Your task to perform on an android device: turn off improve location accuracy Image 0: 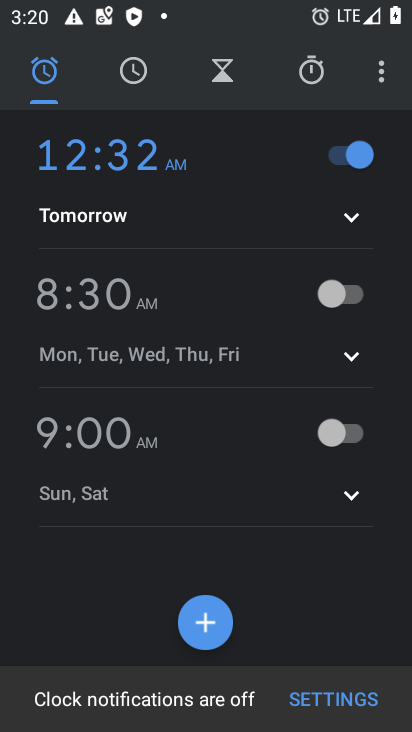
Step 0: press home button
Your task to perform on an android device: turn off improve location accuracy Image 1: 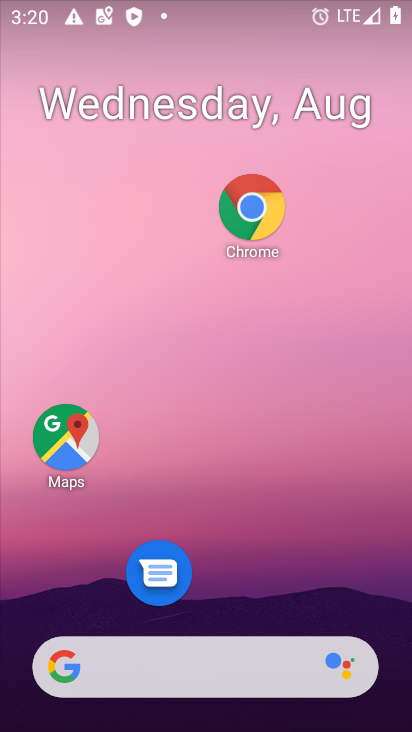
Step 1: drag from (224, 569) to (337, 55)
Your task to perform on an android device: turn off improve location accuracy Image 2: 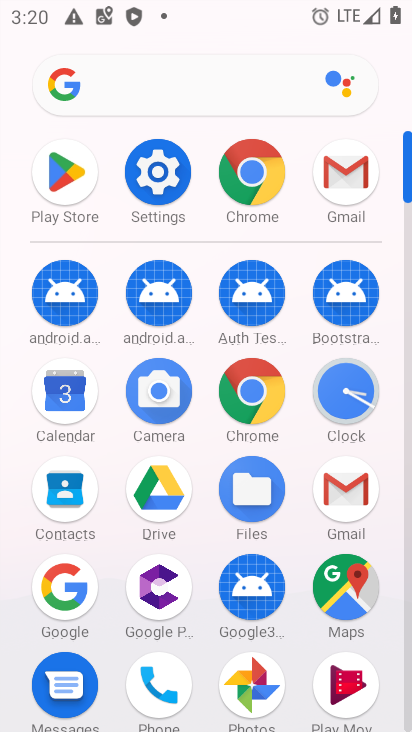
Step 2: click (181, 161)
Your task to perform on an android device: turn off improve location accuracy Image 3: 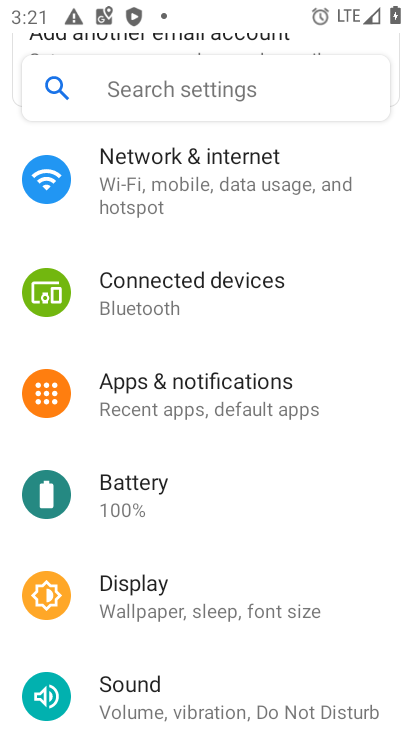
Step 3: drag from (247, 256) to (196, 582)
Your task to perform on an android device: turn off improve location accuracy Image 4: 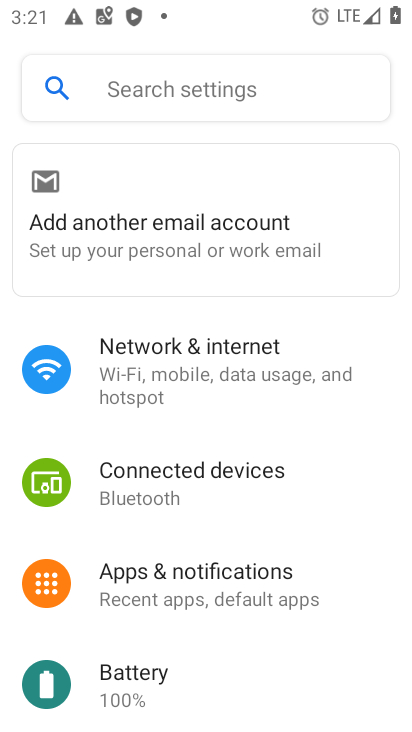
Step 4: drag from (188, 516) to (238, 172)
Your task to perform on an android device: turn off improve location accuracy Image 5: 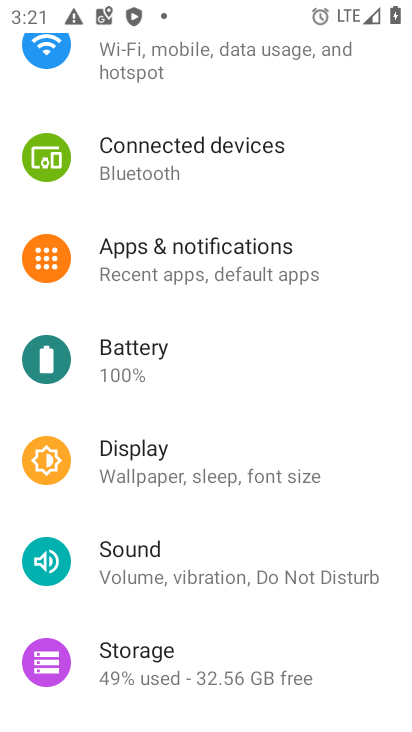
Step 5: drag from (186, 608) to (215, 145)
Your task to perform on an android device: turn off improve location accuracy Image 6: 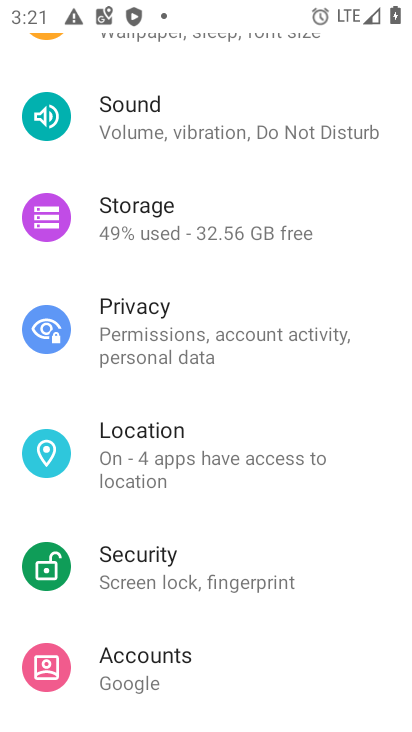
Step 6: click (210, 452)
Your task to perform on an android device: turn off improve location accuracy Image 7: 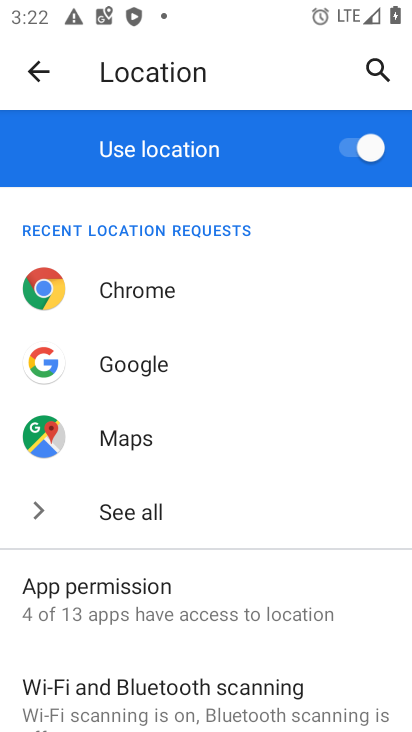
Step 7: drag from (125, 631) to (130, 347)
Your task to perform on an android device: turn off improve location accuracy Image 8: 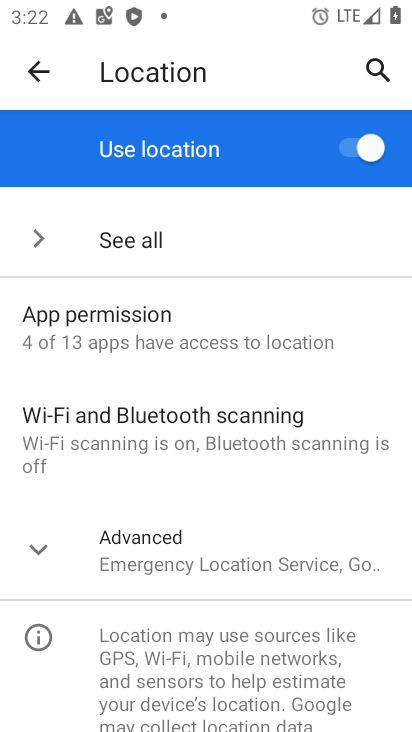
Step 8: click (203, 563)
Your task to perform on an android device: turn off improve location accuracy Image 9: 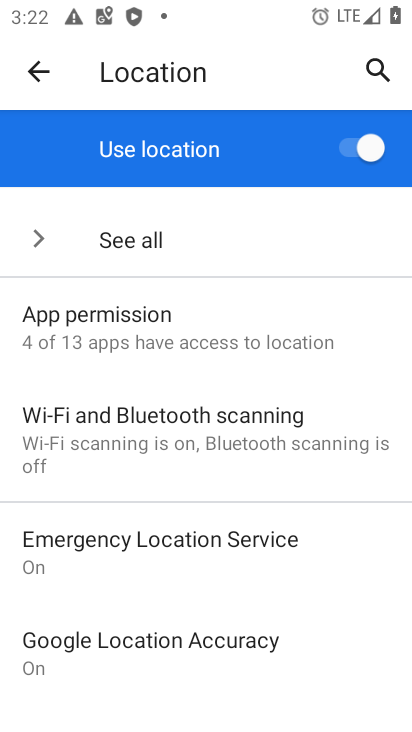
Step 9: click (155, 643)
Your task to perform on an android device: turn off improve location accuracy Image 10: 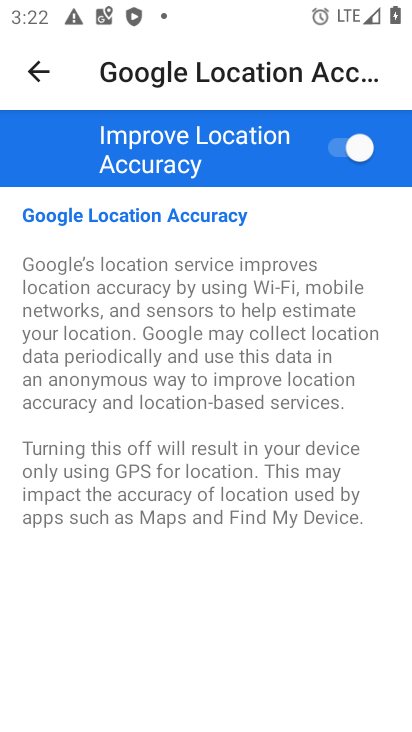
Step 10: click (329, 165)
Your task to perform on an android device: turn off improve location accuracy Image 11: 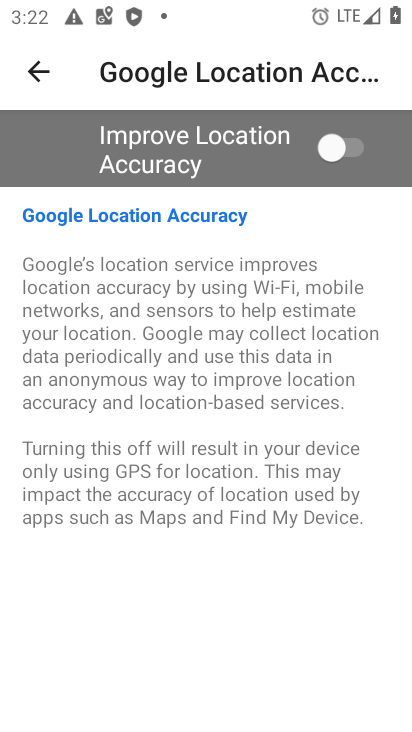
Step 11: task complete